Your task to perform on an android device: toggle pop-ups in chrome Image 0: 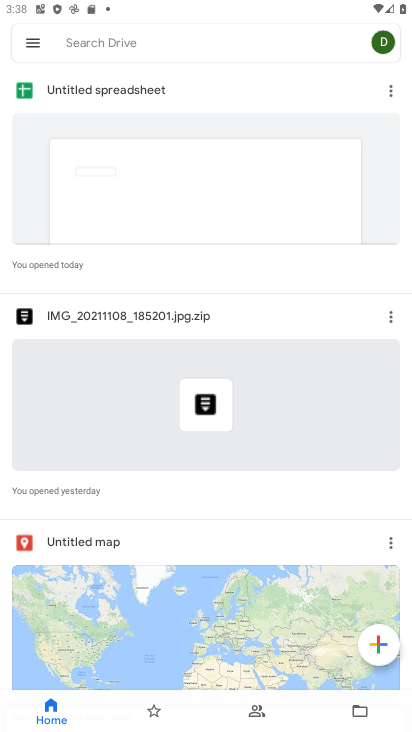
Step 0: press home button
Your task to perform on an android device: toggle pop-ups in chrome Image 1: 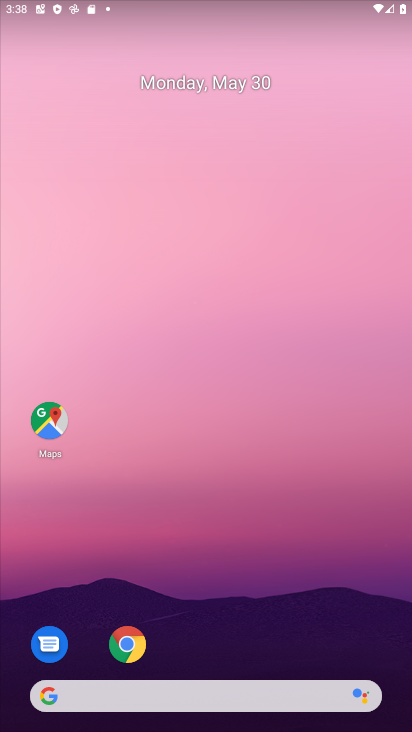
Step 1: click (147, 648)
Your task to perform on an android device: toggle pop-ups in chrome Image 2: 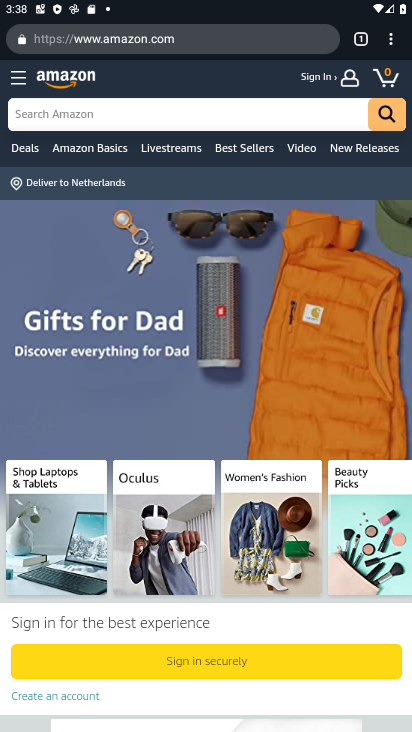
Step 2: task complete